Your task to perform on an android device: Go to accessibility settings Image 0: 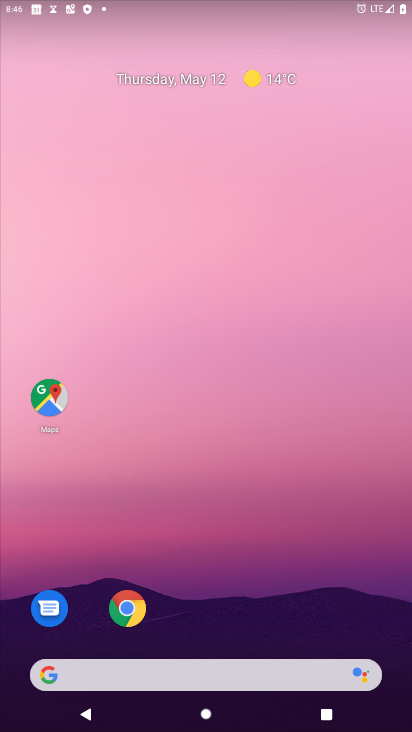
Step 0: drag from (123, 660) to (173, 307)
Your task to perform on an android device: Go to accessibility settings Image 1: 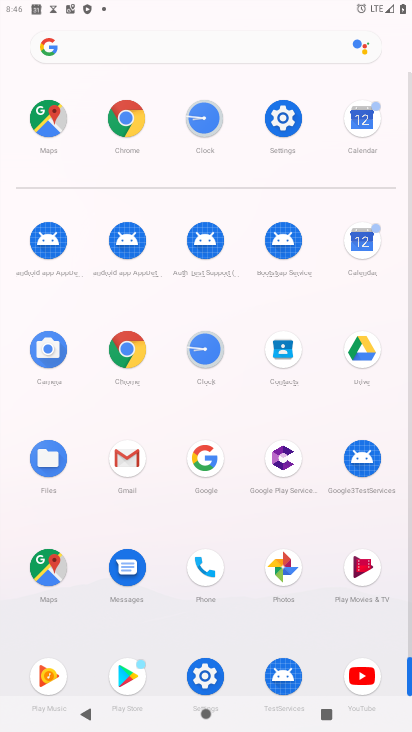
Step 1: click (281, 116)
Your task to perform on an android device: Go to accessibility settings Image 2: 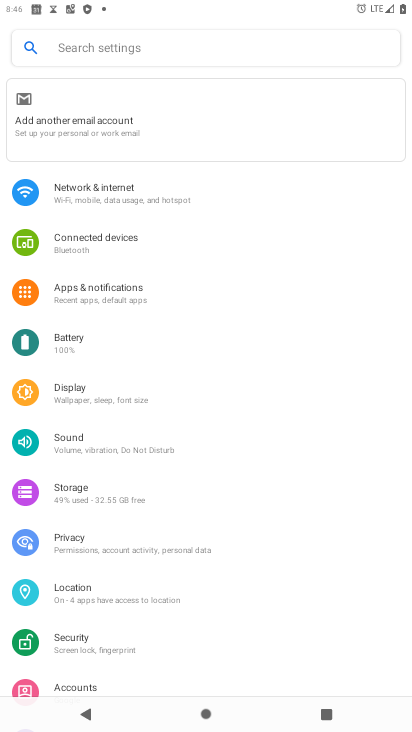
Step 2: drag from (200, 661) to (219, 275)
Your task to perform on an android device: Go to accessibility settings Image 3: 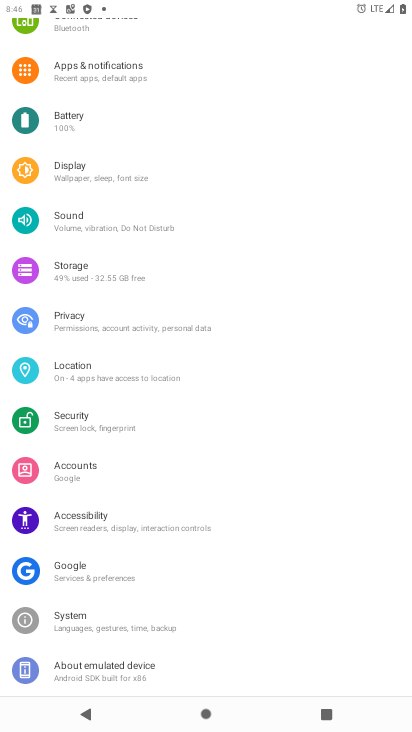
Step 3: click (97, 528)
Your task to perform on an android device: Go to accessibility settings Image 4: 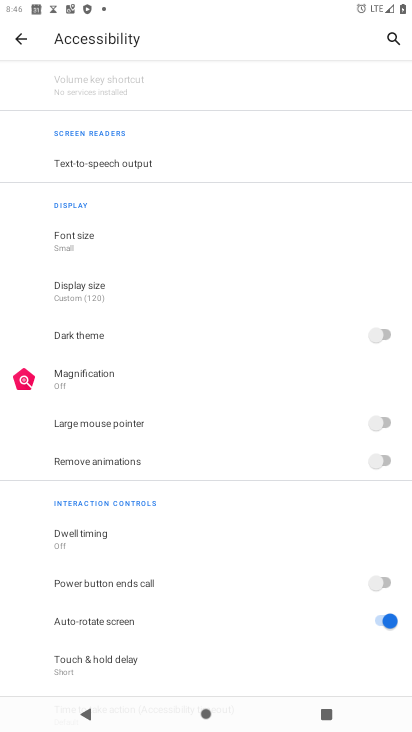
Step 4: task complete